Your task to perform on an android device: What's the weather? Image 0: 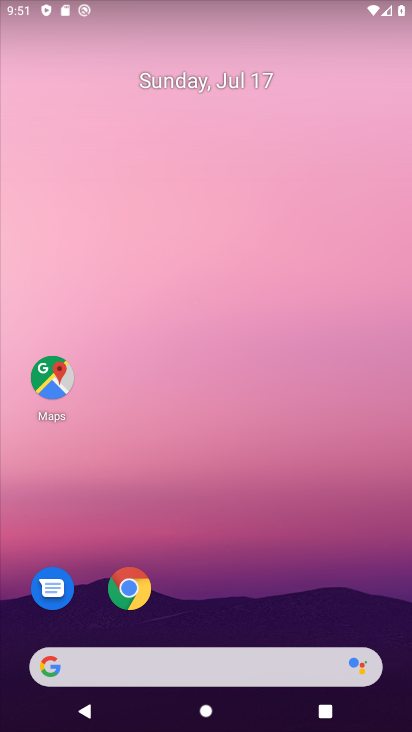
Step 0: drag from (291, 554) to (171, 143)
Your task to perform on an android device: What's the weather? Image 1: 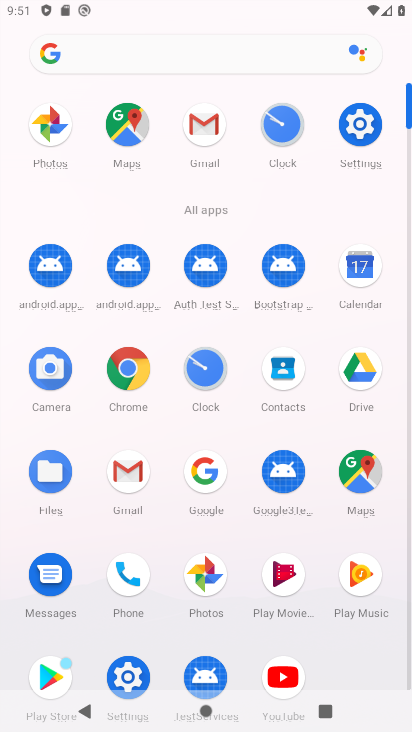
Step 1: click (204, 467)
Your task to perform on an android device: What's the weather? Image 2: 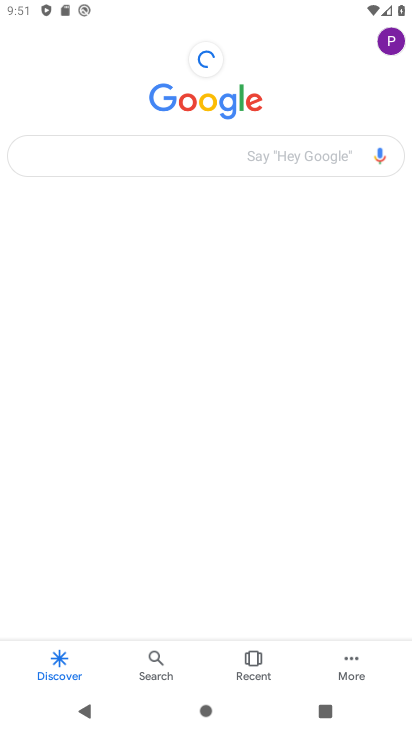
Step 2: click (161, 153)
Your task to perform on an android device: What's the weather? Image 3: 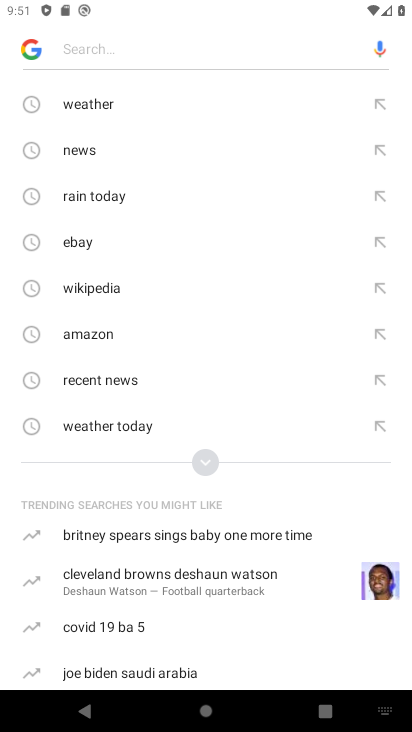
Step 3: click (76, 102)
Your task to perform on an android device: What's the weather? Image 4: 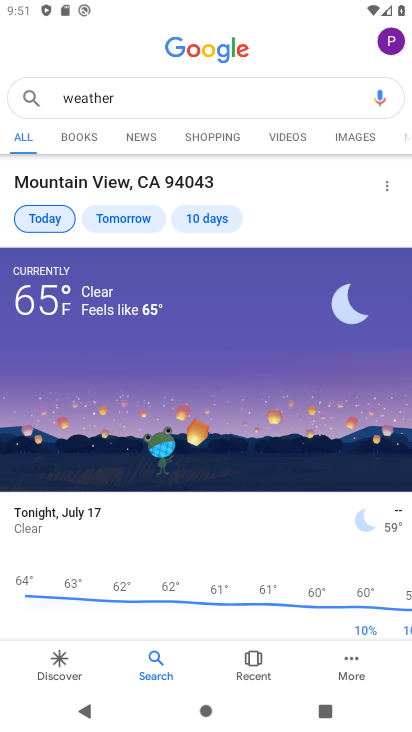
Step 4: task complete